Your task to perform on an android device: What's the weather going to be this weekend? Image 0: 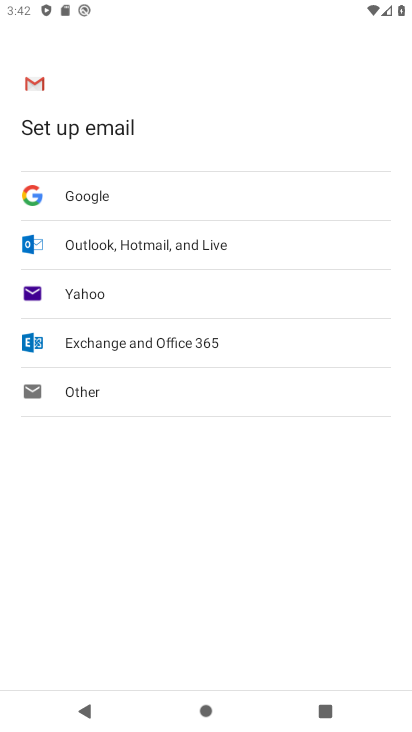
Step 0: press home button
Your task to perform on an android device: What's the weather going to be this weekend? Image 1: 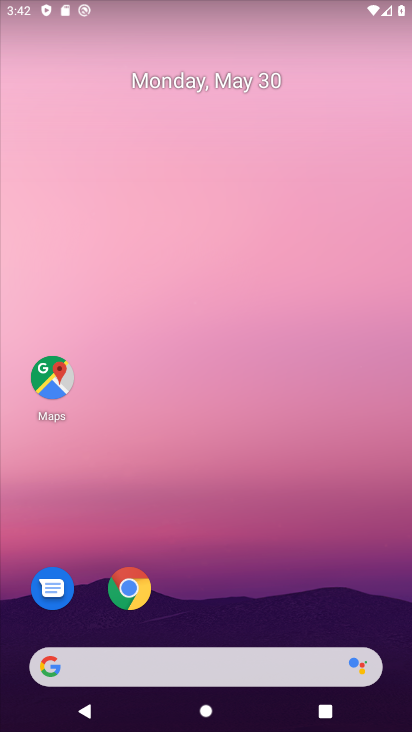
Step 1: click (203, 669)
Your task to perform on an android device: What's the weather going to be this weekend? Image 2: 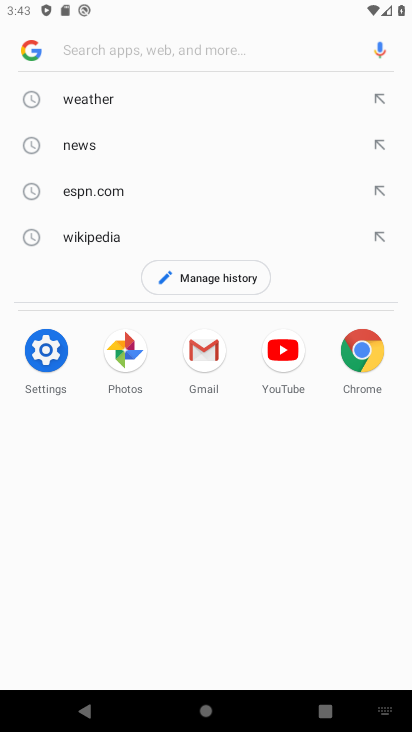
Step 2: click (121, 102)
Your task to perform on an android device: What's the weather going to be this weekend? Image 3: 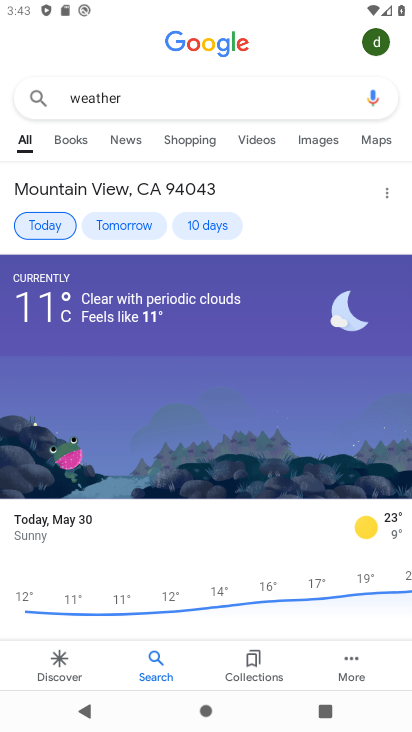
Step 3: click (211, 215)
Your task to perform on an android device: What's the weather going to be this weekend? Image 4: 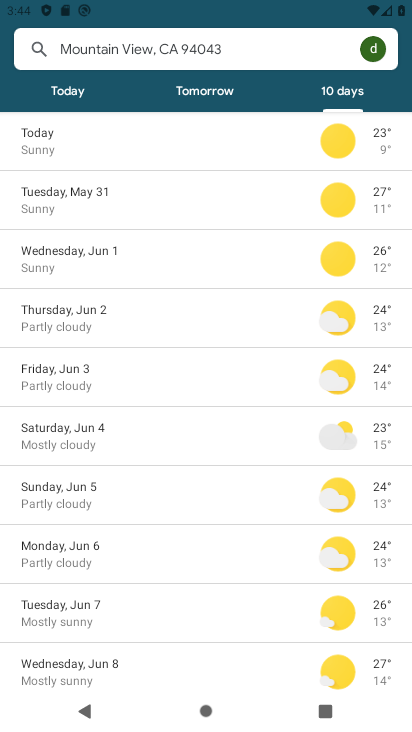
Step 4: task complete